Your task to perform on an android device: Go to wifi settings Image 0: 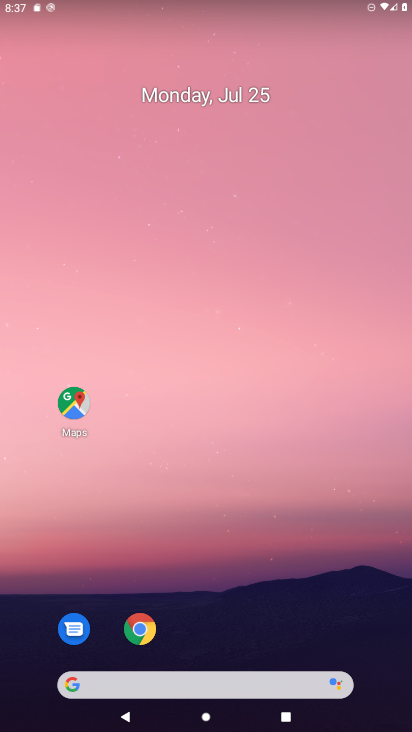
Step 0: drag from (216, 632) to (204, 7)
Your task to perform on an android device: Go to wifi settings Image 1: 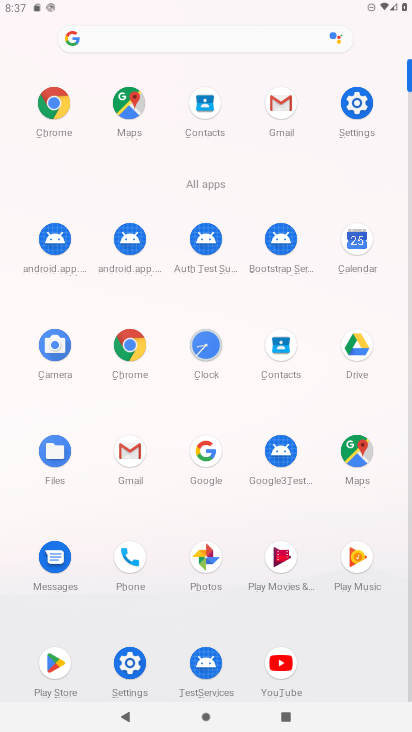
Step 1: click (352, 103)
Your task to perform on an android device: Go to wifi settings Image 2: 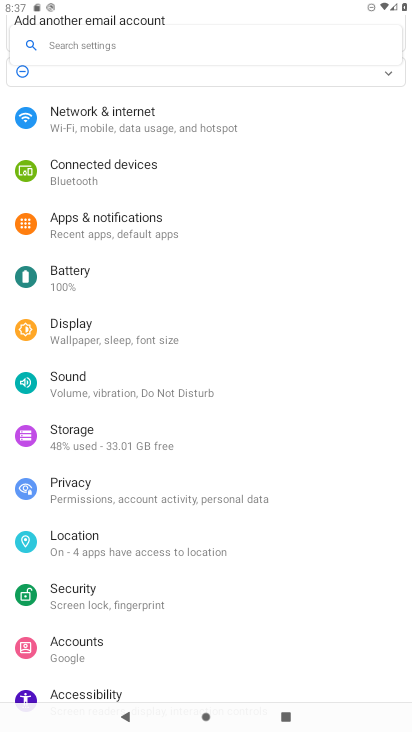
Step 2: click (108, 131)
Your task to perform on an android device: Go to wifi settings Image 3: 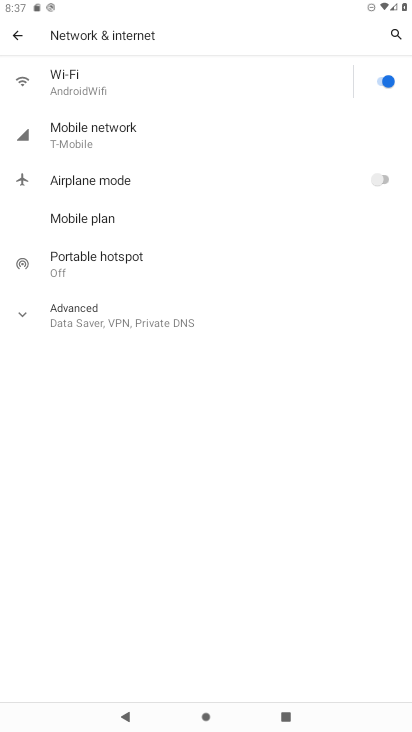
Step 3: click (53, 86)
Your task to perform on an android device: Go to wifi settings Image 4: 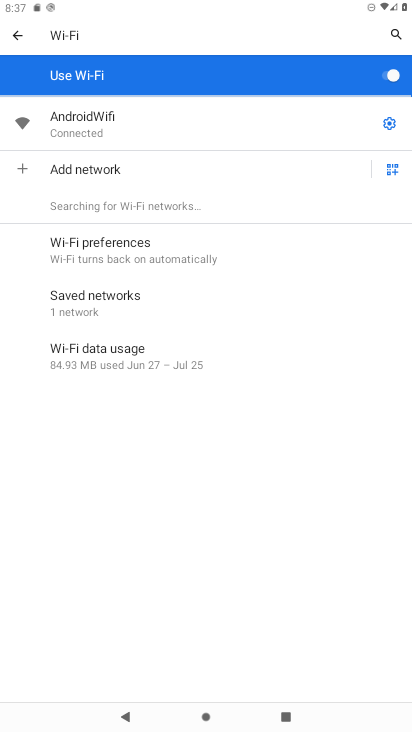
Step 4: click (383, 123)
Your task to perform on an android device: Go to wifi settings Image 5: 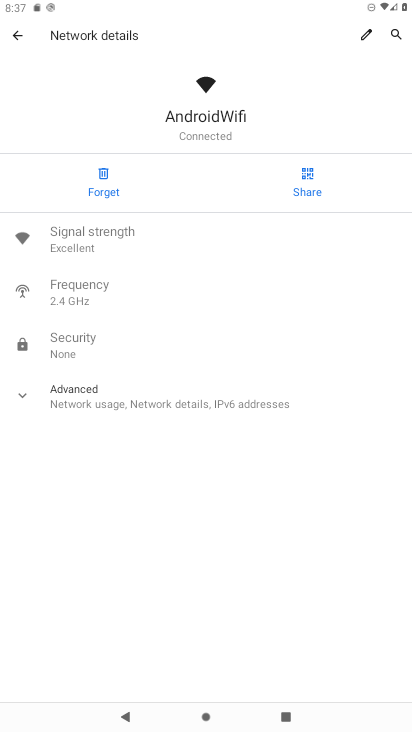
Step 5: task complete